Your task to perform on an android device: open wifi settings Image 0: 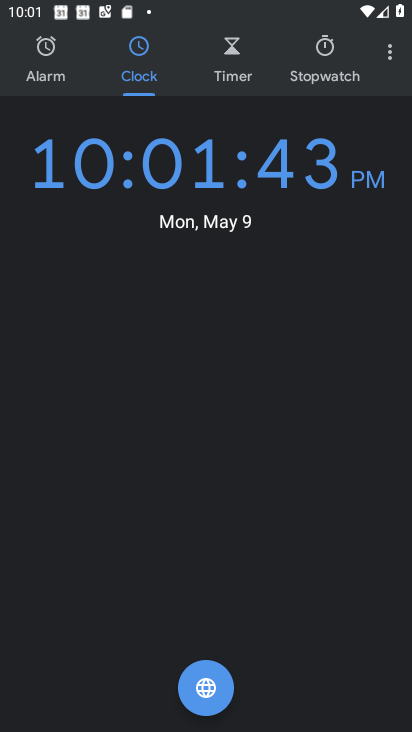
Step 0: press home button
Your task to perform on an android device: open wifi settings Image 1: 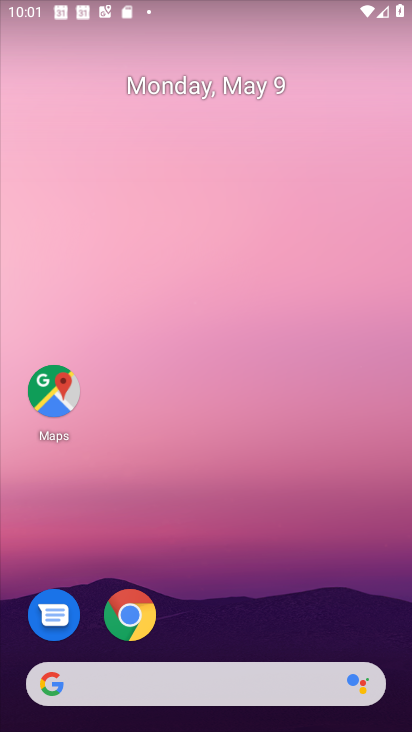
Step 1: drag from (289, 697) to (187, 318)
Your task to perform on an android device: open wifi settings Image 2: 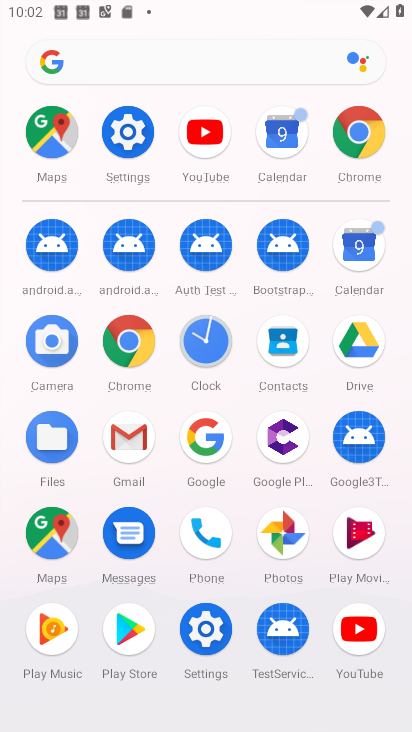
Step 2: click (136, 155)
Your task to perform on an android device: open wifi settings Image 3: 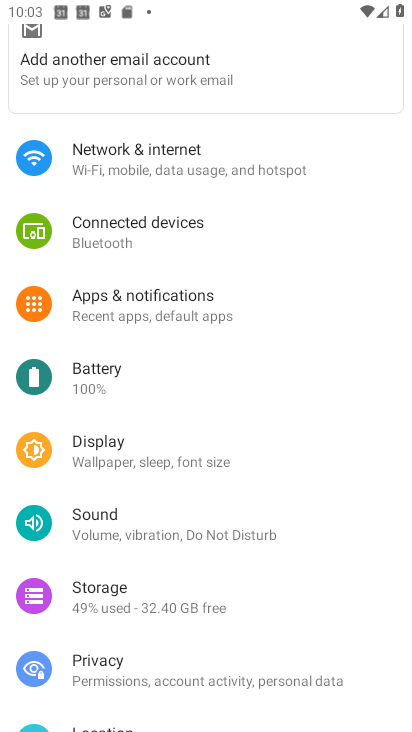
Step 3: click (150, 178)
Your task to perform on an android device: open wifi settings Image 4: 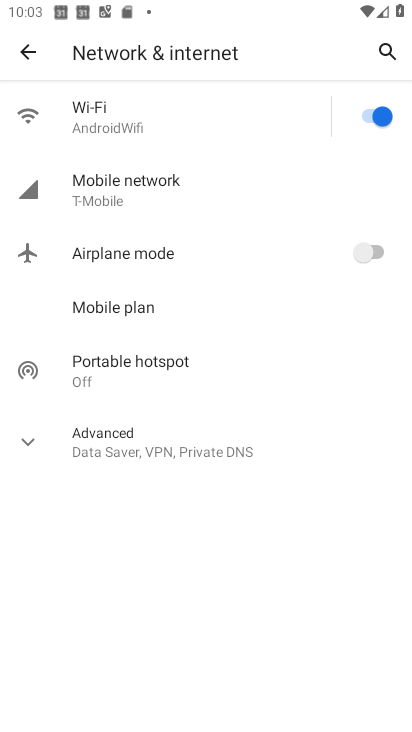
Step 4: click (116, 138)
Your task to perform on an android device: open wifi settings Image 5: 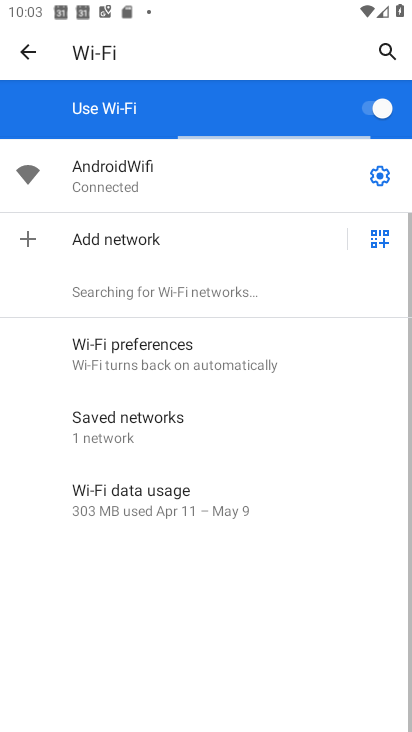
Step 5: task complete